Your task to perform on an android device: Show me recent news Image 0: 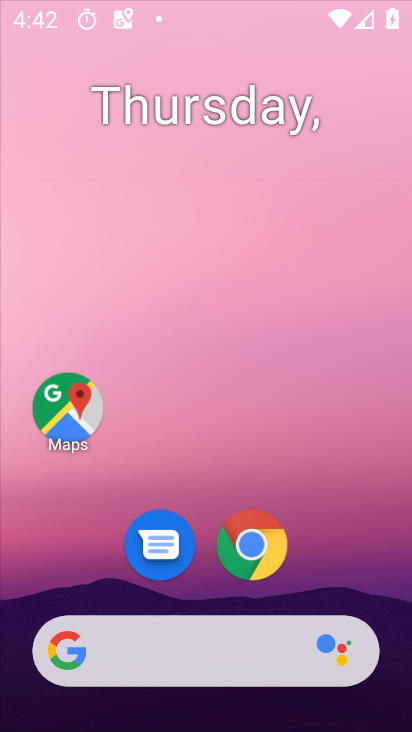
Step 0: drag from (389, 250) to (372, 71)
Your task to perform on an android device: Show me recent news Image 1: 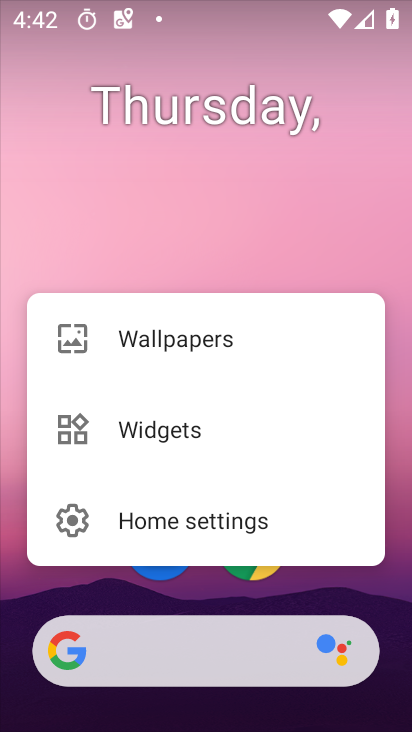
Step 1: click (224, 242)
Your task to perform on an android device: Show me recent news Image 2: 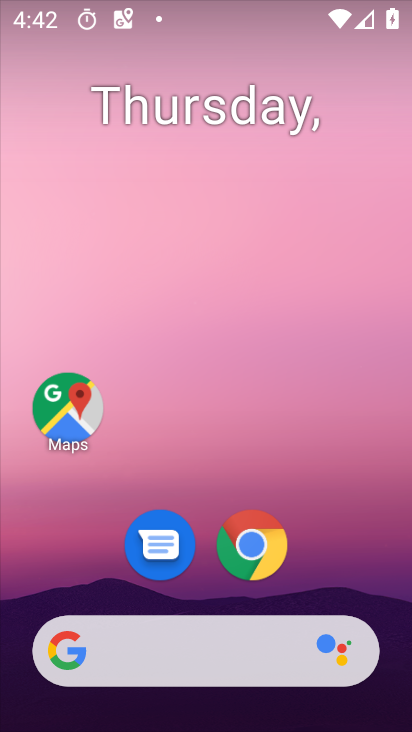
Step 2: task complete